Your task to perform on an android device: open the mobile data screen to see how much data has been used Image 0: 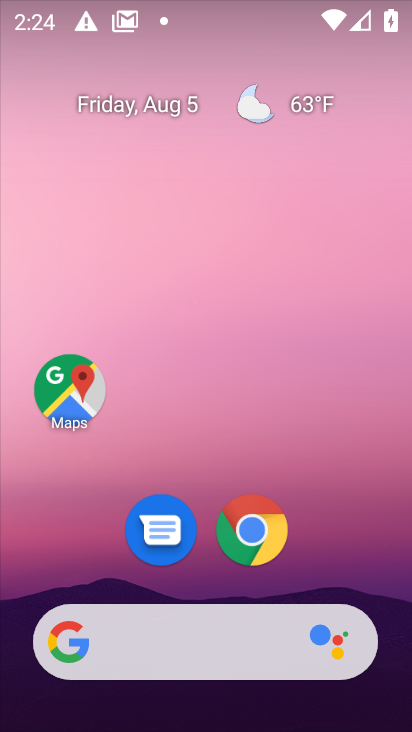
Step 0: drag from (221, 564) to (330, 26)
Your task to perform on an android device: open the mobile data screen to see how much data has been used Image 1: 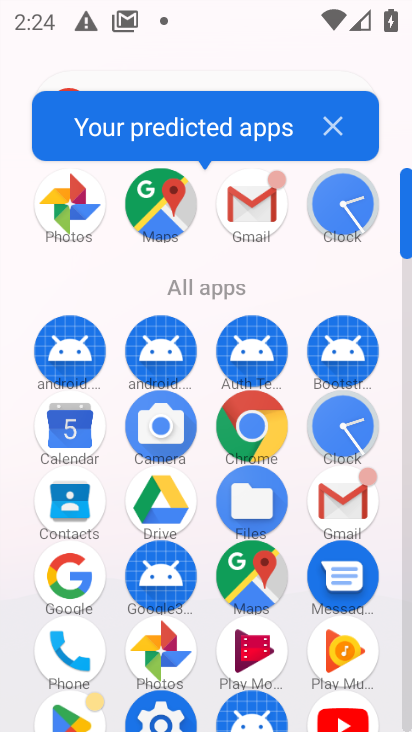
Step 1: click (169, 713)
Your task to perform on an android device: open the mobile data screen to see how much data has been used Image 2: 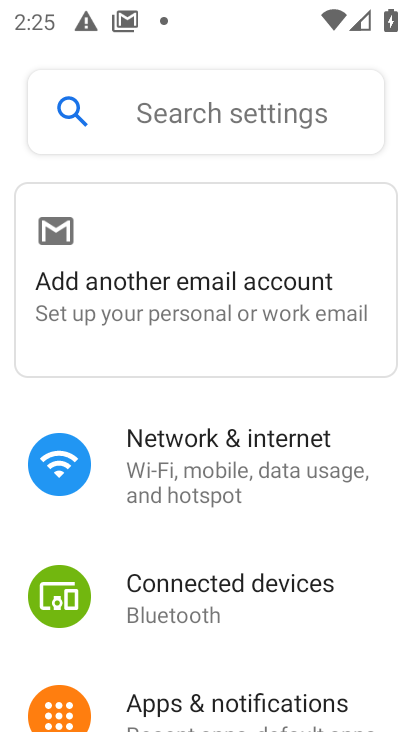
Step 2: click (246, 451)
Your task to perform on an android device: open the mobile data screen to see how much data has been used Image 3: 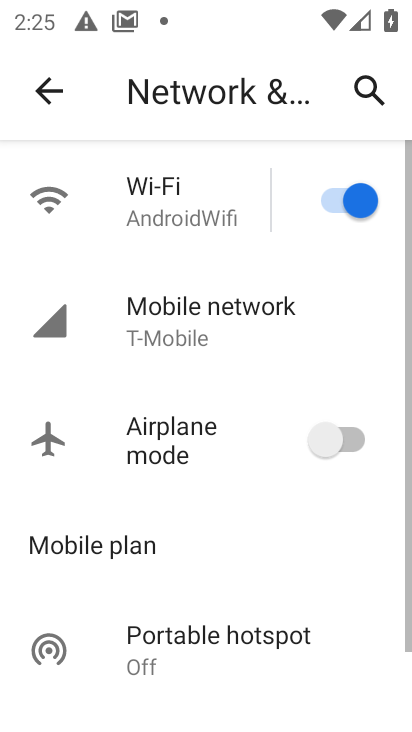
Step 3: click (216, 335)
Your task to perform on an android device: open the mobile data screen to see how much data has been used Image 4: 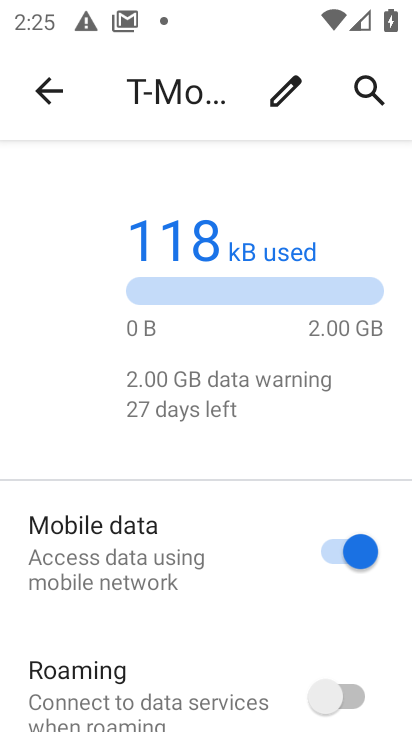
Step 4: task complete